Your task to perform on an android device: create a new album in the google photos Image 0: 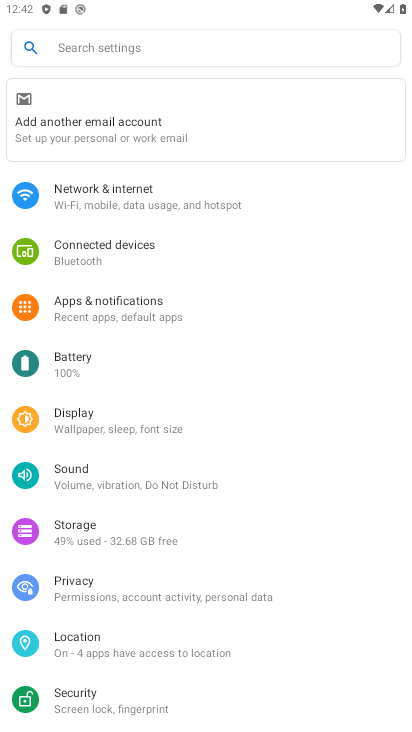
Step 0: press home button
Your task to perform on an android device: create a new album in the google photos Image 1: 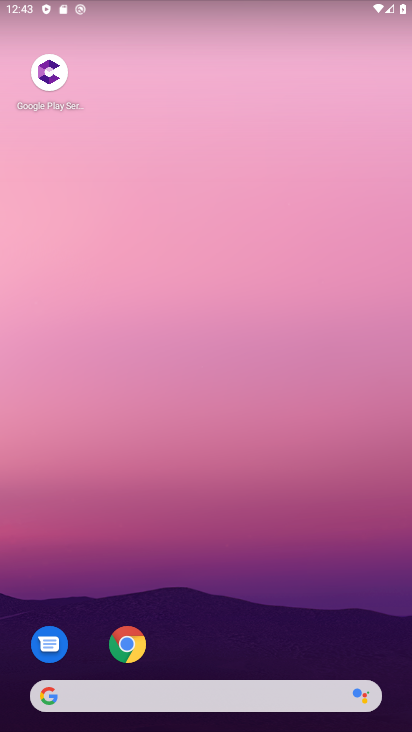
Step 1: drag from (226, 621) to (245, 135)
Your task to perform on an android device: create a new album in the google photos Image 2: 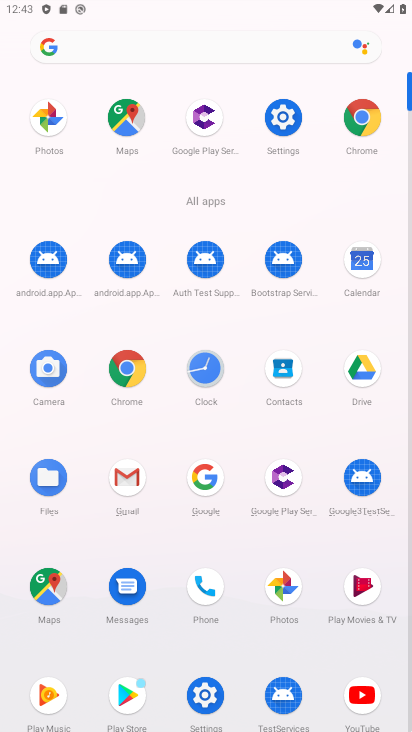
Step 2: click (299, 583)
Your task to perform on an android device: create a new album in the google photos Image 3: 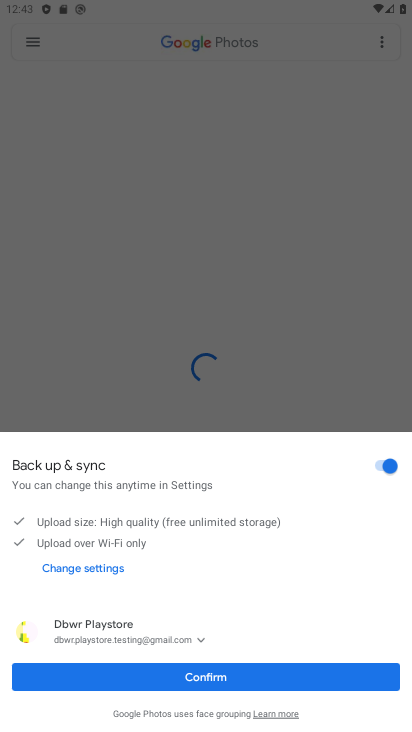
Step 3: click (221, 682)
Your task to perform on an android device: create a new album in the google photos Image 4: 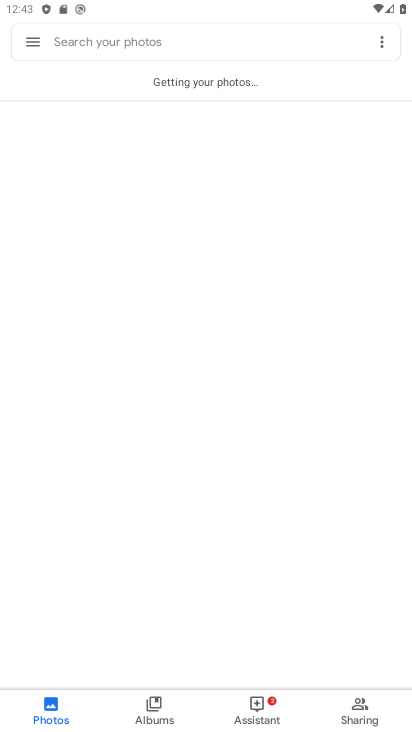
Step 4: click (142, 711)
Your task to perform on an android device: create a new album in the google photos Image 5: 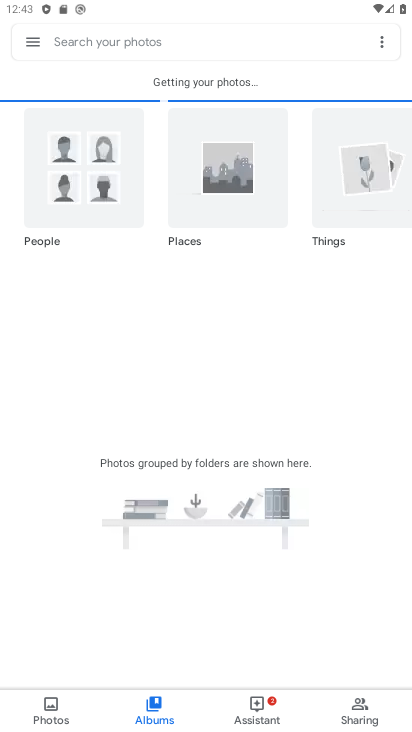
Step 5: task complete